Your task to perform on an android device: delete the emails in spam in the gmail app Image 0: 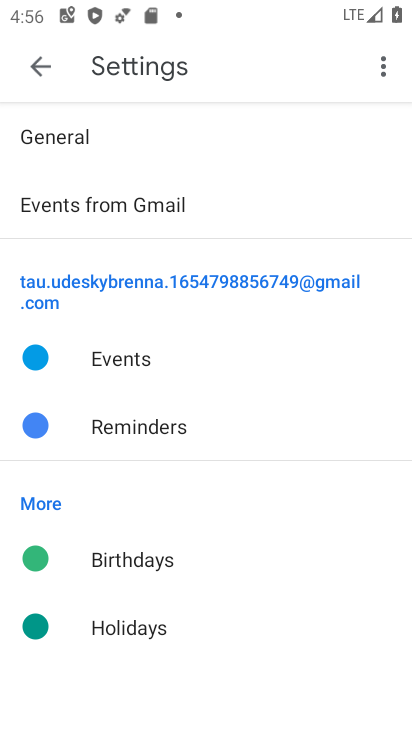
Step 0: press home button
Your task to perform on an android device: delete the emails in spam in the gmail app Image 1: 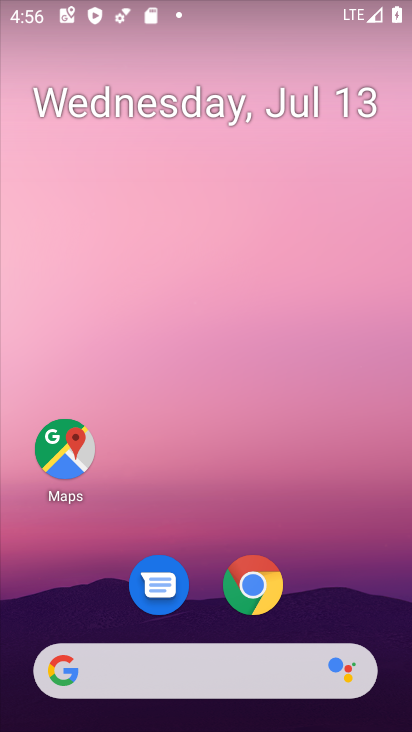
Step 1: drag from (329, 602) to (313, 56)
Your task to perform on an android device: delete the emails in spam in the gmail app Image 2: 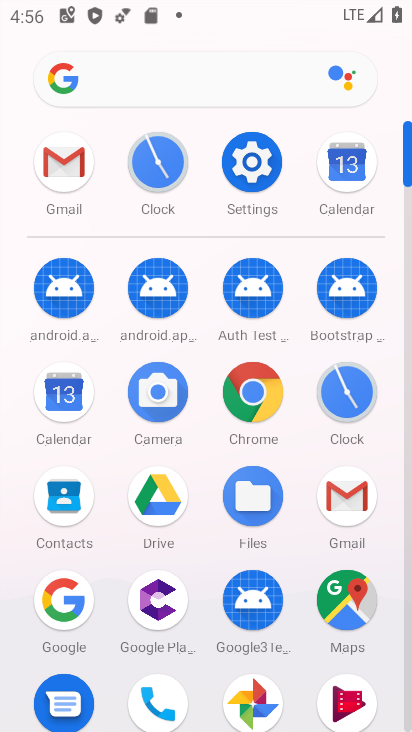
Step 2: click (59, 166)
Your task to perform on an android device: delete the emails in spam in the gmail app Image 3: 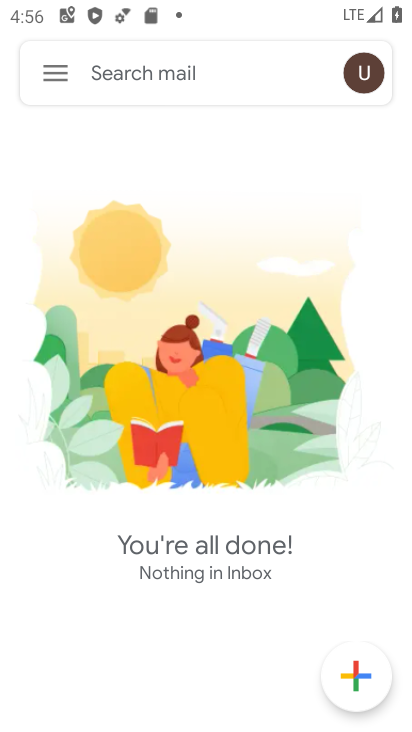
Step 3: click (56, 73)
Your task to perform on an android device: delete the emails in spam in the gmail app Image 4: 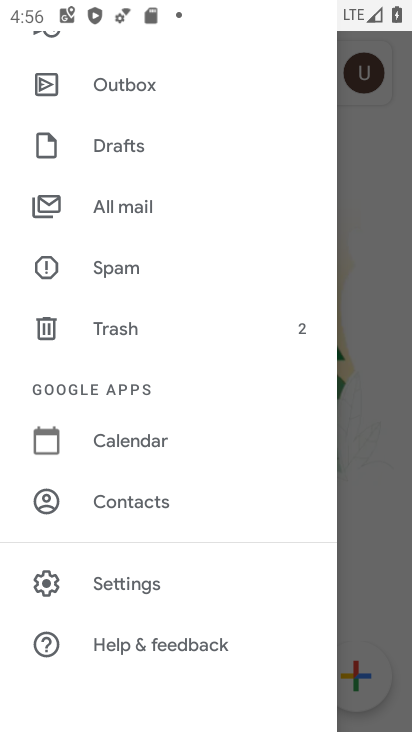
Step 4: click (125, 266)
Your task to perform on an android device: delete the emails in spam in the gmail app Image 5: 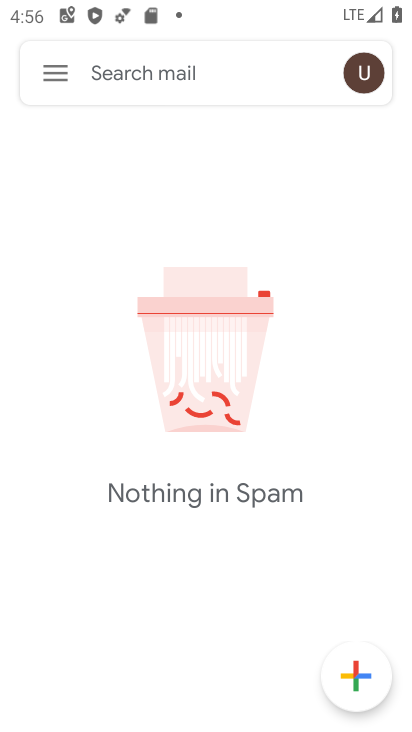
Step 5: task complete